Your task to perform on an android device: change your default location settings in chrome Image 0: 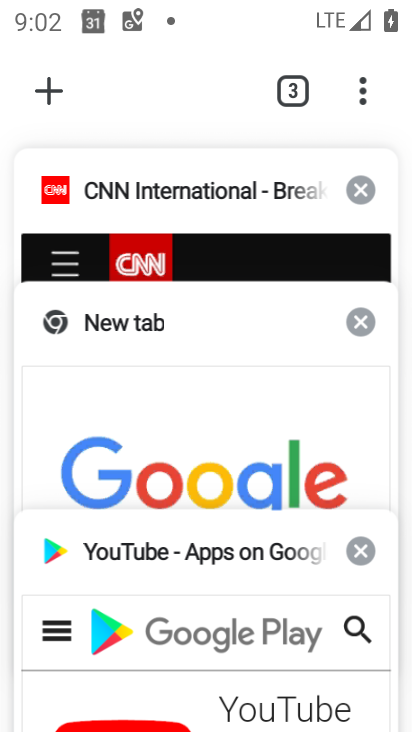
Step 0: click (52, 94)
Your task to perform on an android device: change your default location settings in chrome Image 1: 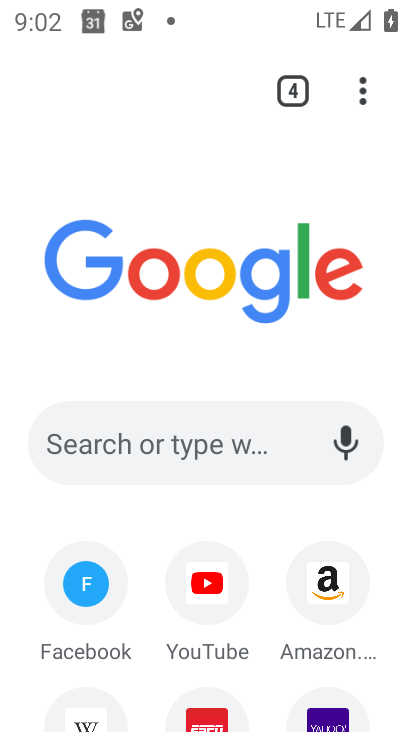
Step 1: click (369, 108)
Your task to perform on an android device: change your default location settings in chrome Image 2: 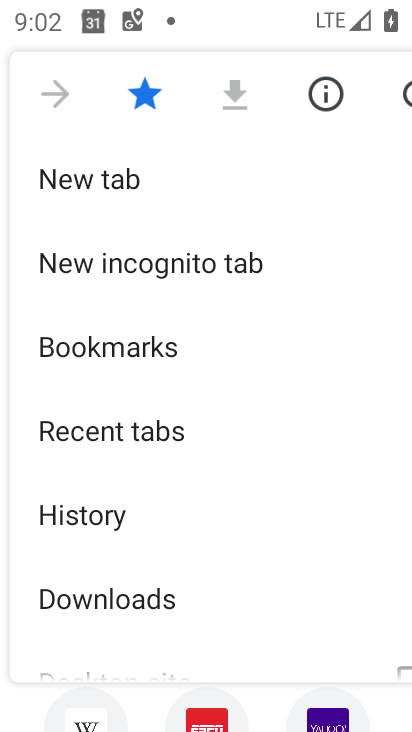
Step 2: drag from (147, 606) to (221, 336)
Your task to perform on an android device: change your default location settings in chrome Image 3: 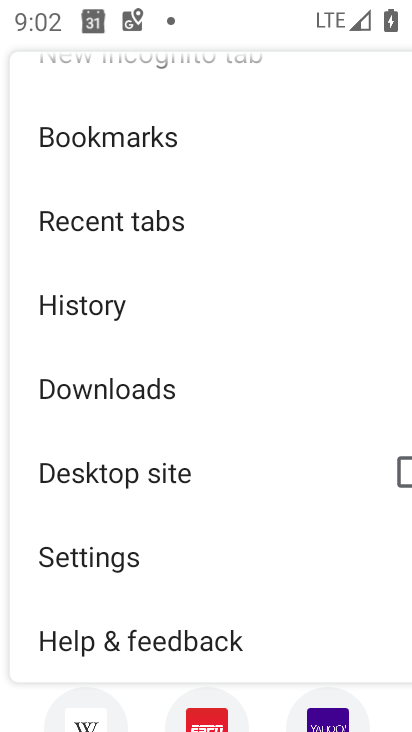
Step 3: click (155, 538)
Your task to perform on an android device: change your default location settings in chrome Image 4: 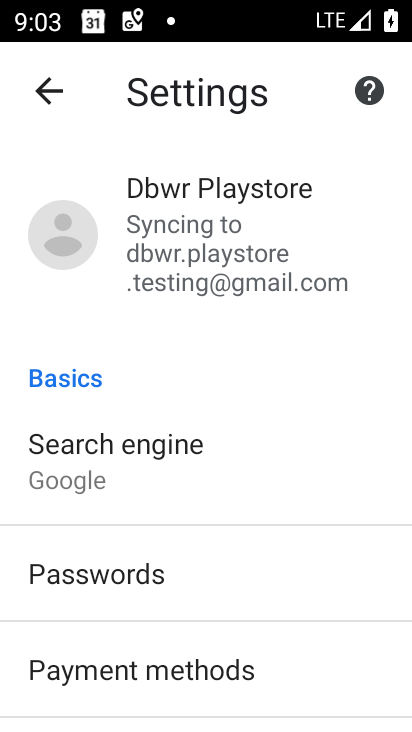
Step 4: drag from (168, 587) to (194, 322)
Your task to perform on an android device: change your default location settings in chrome Image 5: 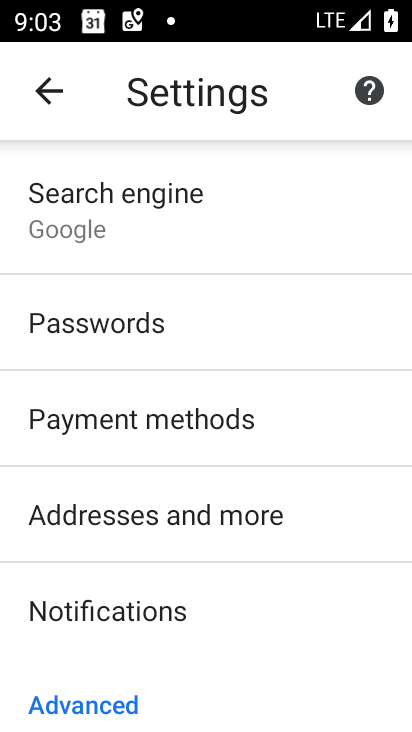
Step 5: click (249, 535)
Your task to perform on an android device: change your default location settings in chrome Image 6: 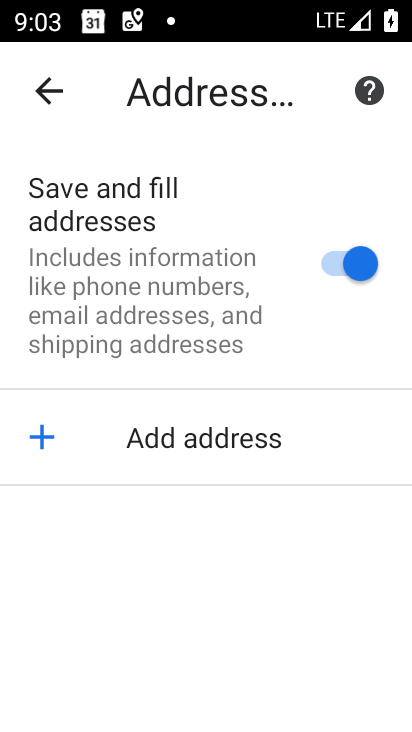
Step 6: task complete